Your task to perform on an android device: open app "DoorDash - Dasher" (install if not already installed) Image 0: 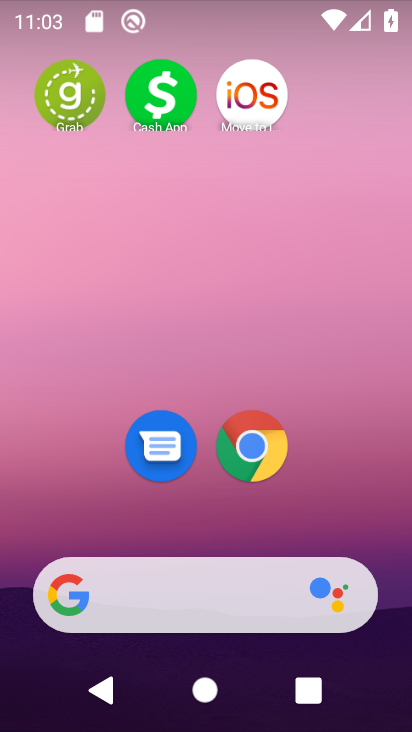
Step 0: drag from (224, 520) to (227, 91)
Your task to perform on an android device: open app "DoorDash - Dasher" (install if not already installed) Image 1: 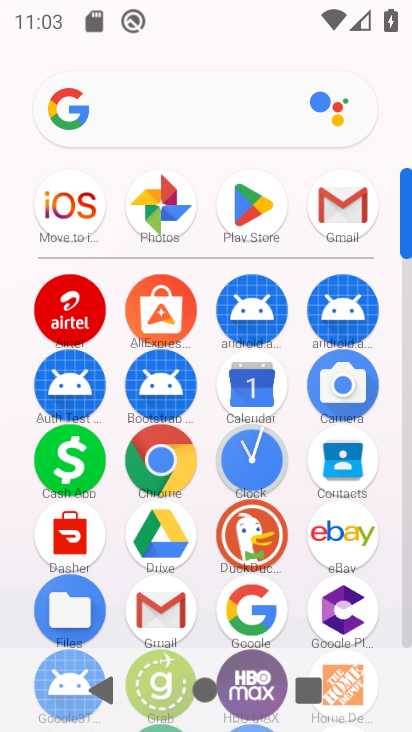
Step 1: click (276, 235)
Your task to perform on an android device: open app "DoorDash - Dasher" (install if not already installed) Image 2: 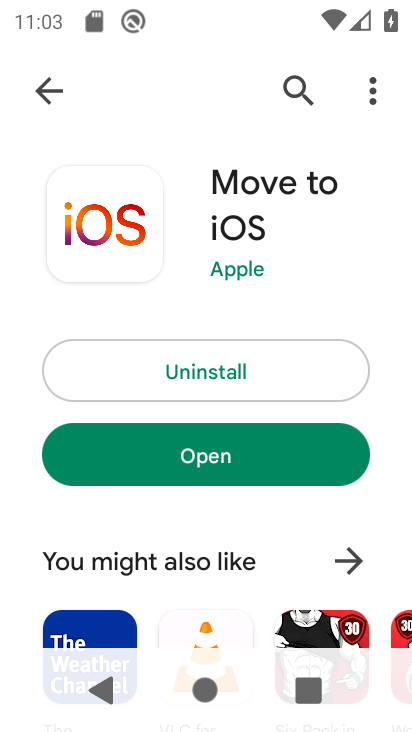
Step 2: click (289, 93)
Your task to perform on an android device: open app "DoorDash - Dasher" (install if not already installed) Image 3: 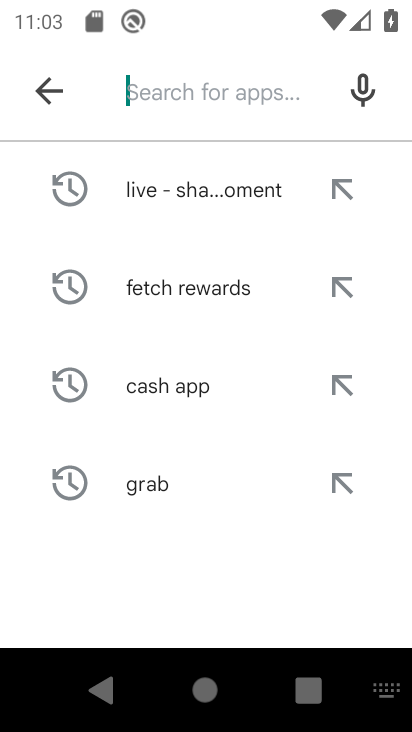
Step 3: type "DoorDash - Dasher"
Your task to perform on an android device: open app "DoorDash - Dasher" (install if not already installed) Image 4: 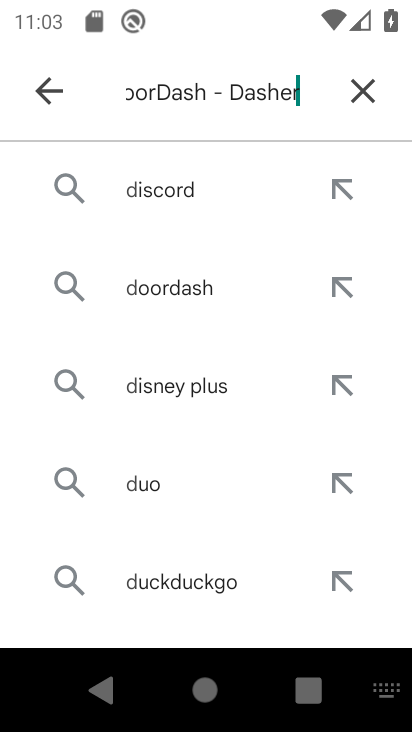
Step 4: type ""
Your task to perform on an android device: open app "DoorDash - Dasher" (install if not already installed) Image 5: 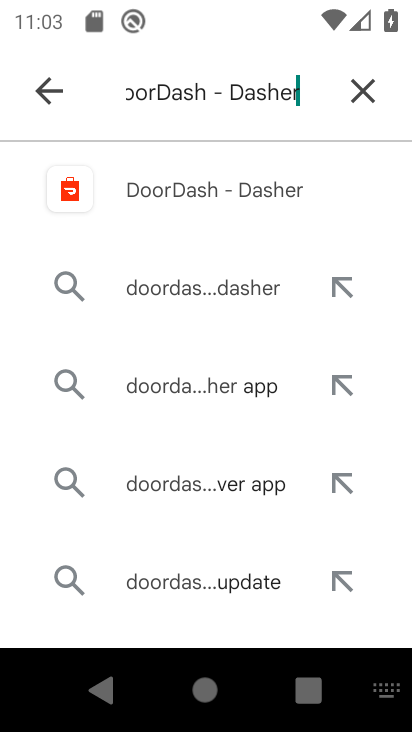
Step 5: click (202, 190)
Your task to perform on an android device: open app "DoorDash - Dasher" (install if not already installed) Image 6: 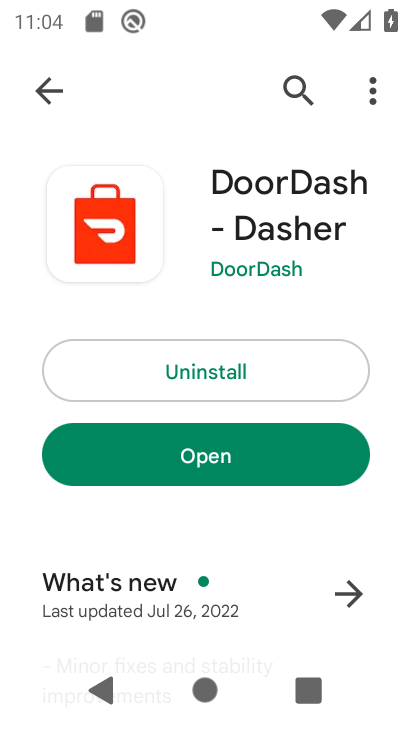
Step 6: click (203, 441)
Your task to perform on an android device: open app "DoorDash - Dasher" (install if not already installed) Image 7: 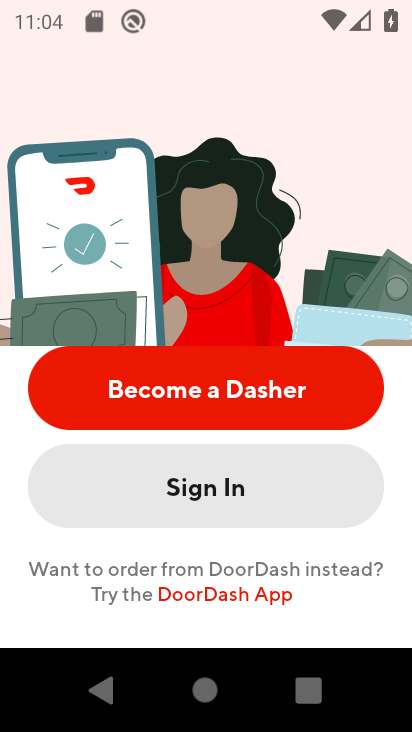
Step 7: task complete